Your task to perform on an android device: turn off smart reply in the gmail app Image 0: 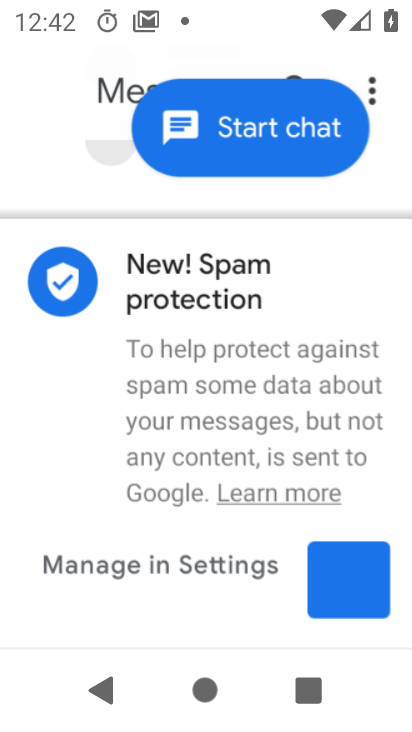
Step 0: drag from (340, 513) to (134, 11)
Your task to perform on an android device: turn off smart reply in the gmail app Image 1: 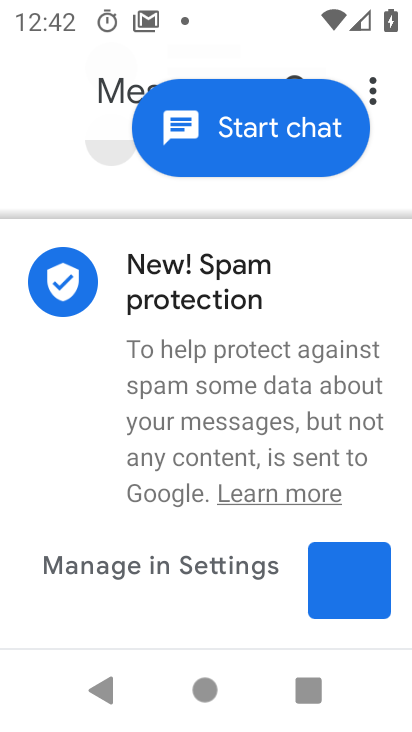
Step 1: press home button
Your task to perform on an android device: turn off smart reply in the gmail app Image 2: 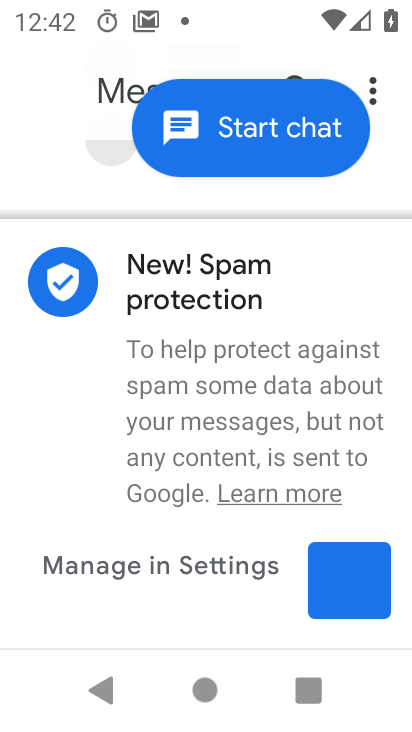
Step 2: press home button
Your task to perform on an android device: turn off smart reply in the gmail app Image 3: 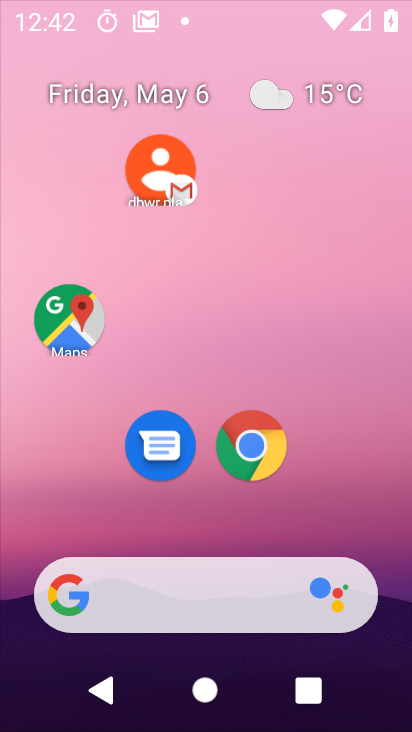
Step 3: press home button
Your task to perform on an android device: turn off smart reply in the gmail app Image 4: 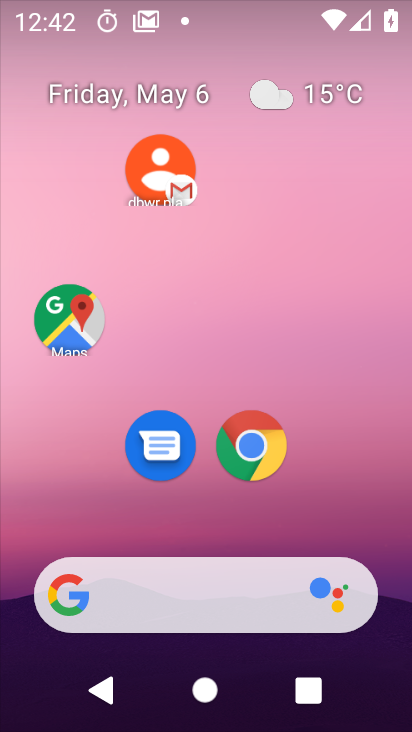
Step 4: press home button
Your task to perform on an android device: turn off smart reply in the gmail app Image 5: 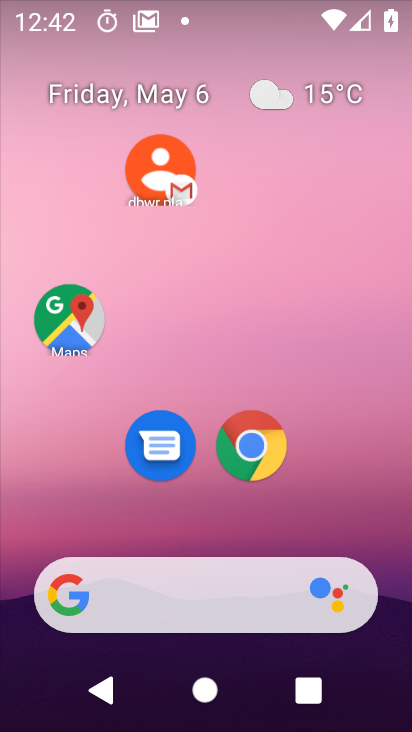
Step 5: drag from (352, 486) to (107, 6)
Your task to perform on an android device: turn off smart reply in the gmail app Image 6: 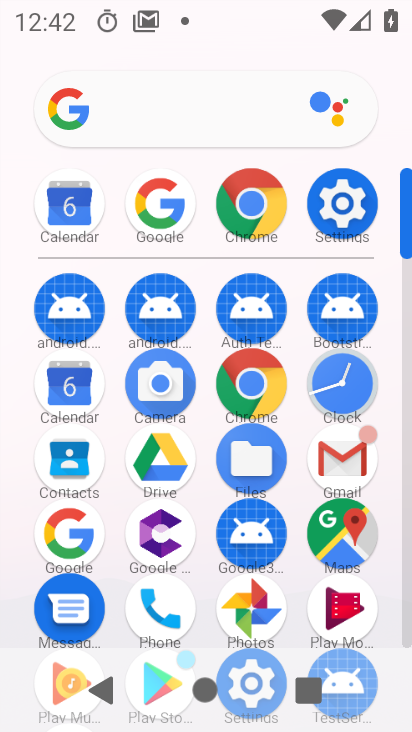
Step 6: click (355, 463)
Your task to perform on an android device: turn off smart reply in the gmail app Image 7: 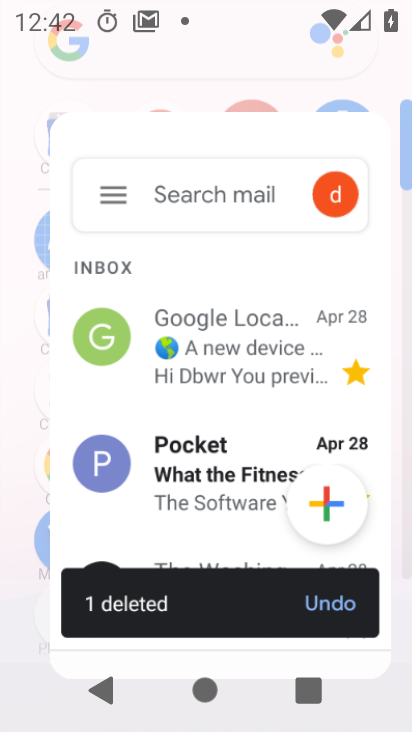
Step 7: click (355, 463)
Your task to perform on an android device: turn off smart reply in the gmail app Image 8: 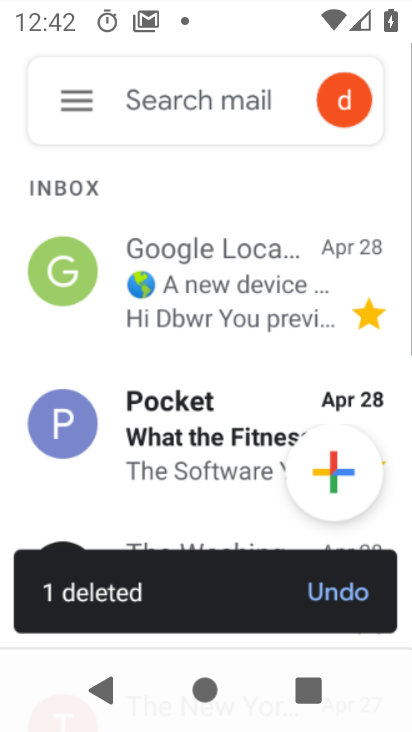
Step 8: click (355, 463)
Your task to perform on an android device: turn off smart reply in the gmail app Image 9: 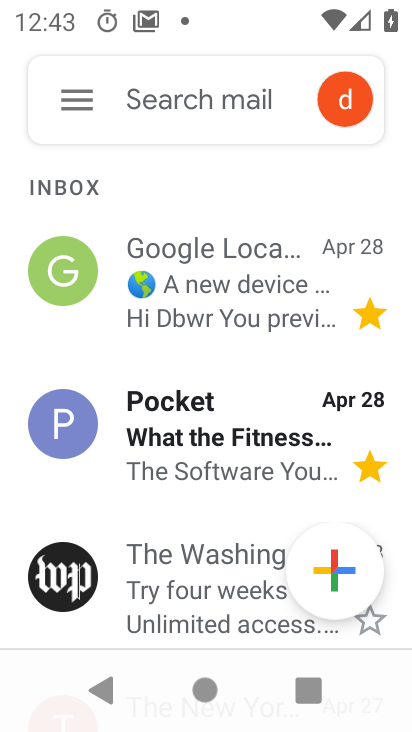
Step 9: click (71, 104)
Your task to perform on an android device: turn off smart reply in the gmail app Image 10: 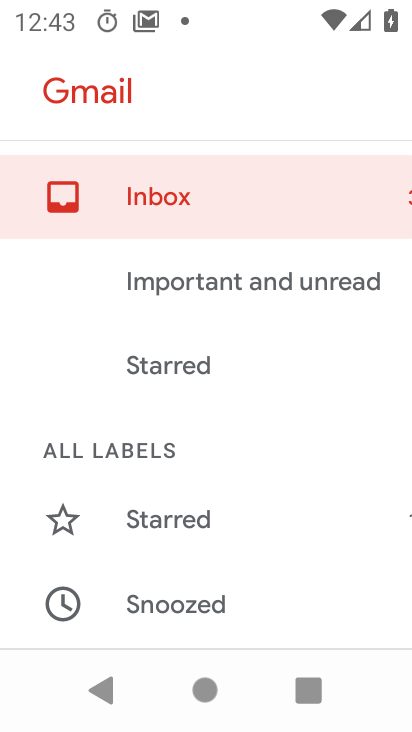
Step 10: click (71, 104)
Your task to perform on an android device: turn off smart reply in the gmail app Image 11: 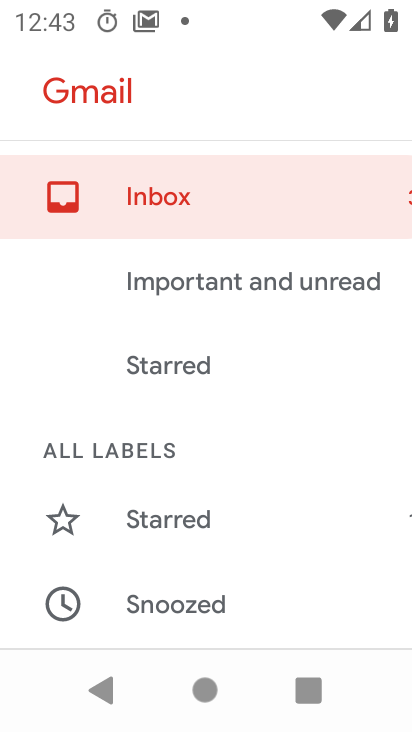
Step 11: click (71, 104)
Your task to perform on an android device: turn off smart reply in the gmail app Image 12: 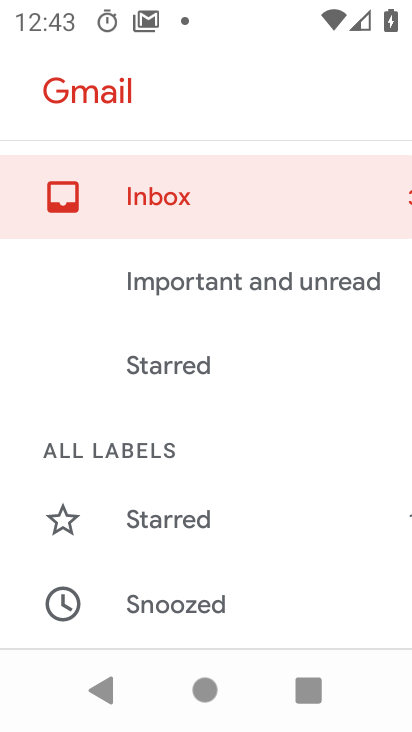
Step 12: drag from (225, 558) to (218, 45)
Your task to perform on an android device: turn off smart reply in the gmail app Image 13: 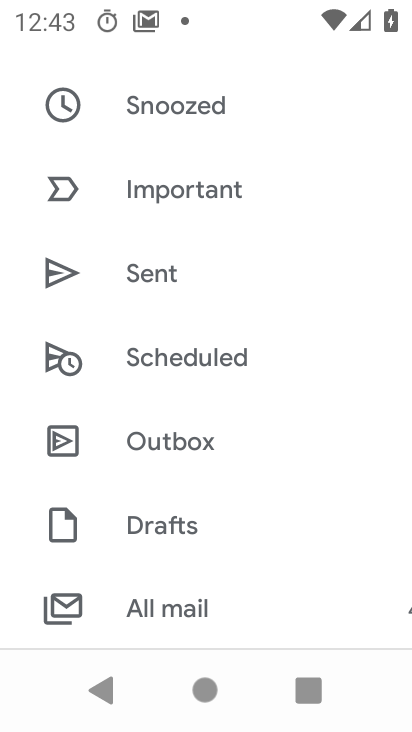
Step 13: drag from (259, 537) to (225, 99)
Your task to perform on an android device: turn off smart reply in the gmail app Image 14: 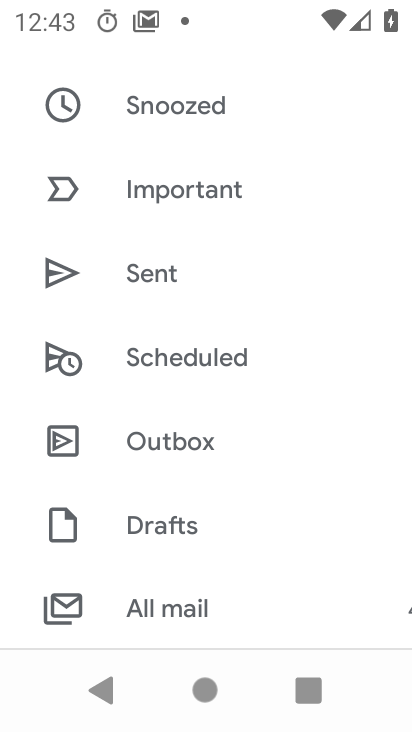
Step 14: drag from (219, 271) to (228, 68)
Your task to perform on an android device: turn off smart reply in the gmail app Image 15: 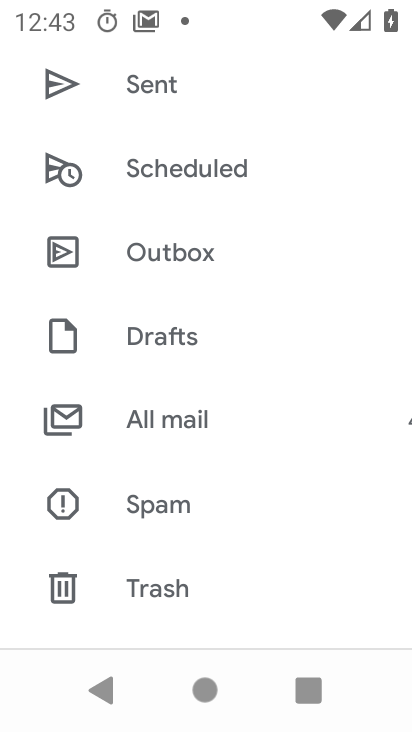
Step 15: drag from (282, 444) to (238, 37)
Your task to perform on an android device: turn off smart reply in the gmail app Image 16: 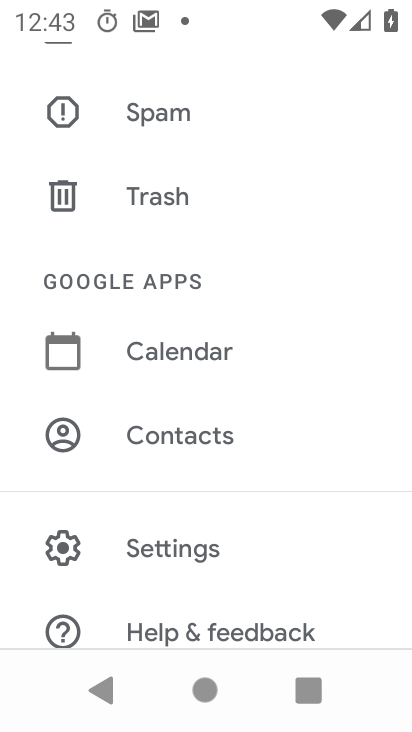
Step 16: drag from (230, 569) to (217, 152)
Your task to perform on an android device: turn off smart reply in the gmail app Image 17: 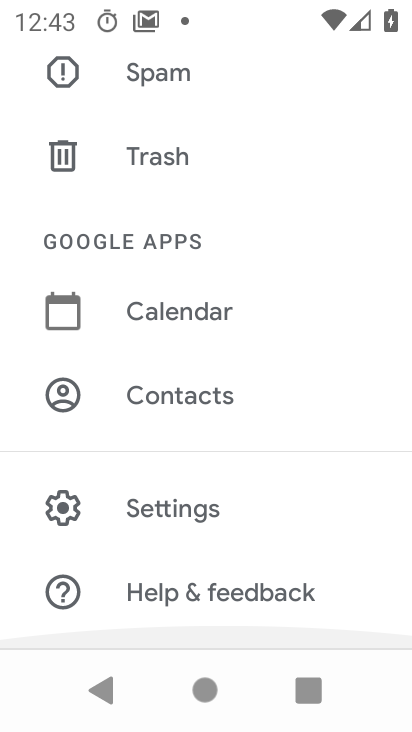
Step 17: drag from (276, 505) to (191, 68)
Your task to perform on an android device: turn off smart reply in the gmail app Image 18: 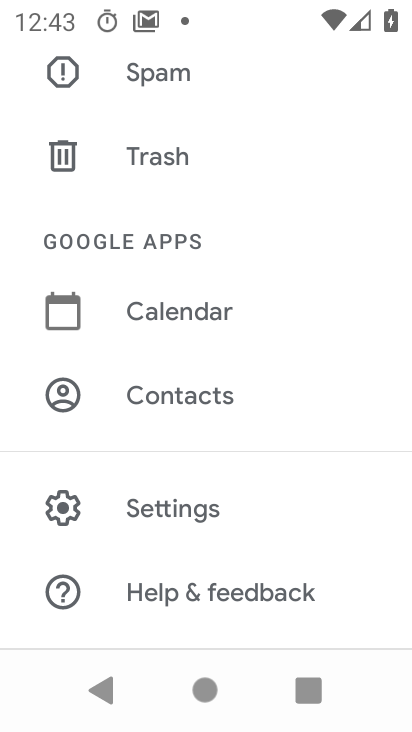
Step 18: click (170, 506)
Your task to perform on an android device: turn off smart reply in the gmail app Image 19: 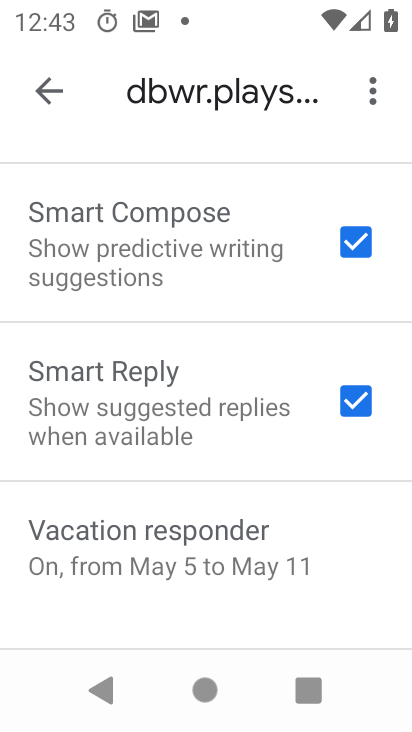
Step 19: click (366, 406)
Your task to perform on an android device: turn off smart reply in the gmail app Image 20: 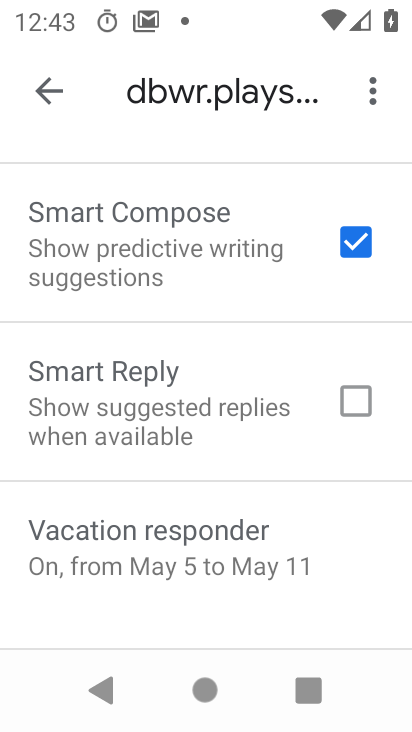
Step 20: task complete